Your task to perform on an android device: toggle javascript in the chrome app Image 0: 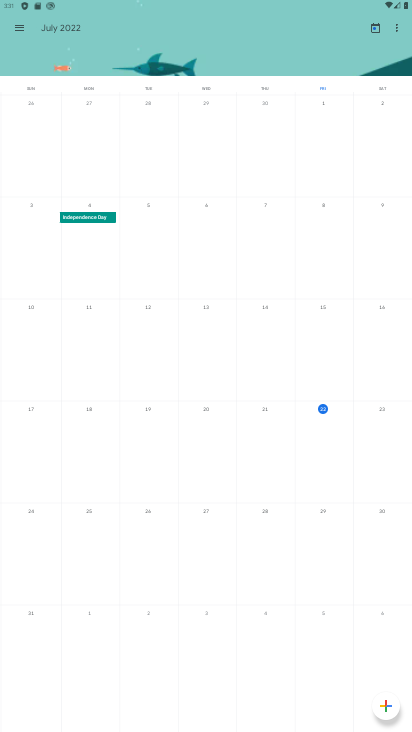
Step 0: press home button
Your task to perform on an android device: toggle javascript in the chrome app Image 1: 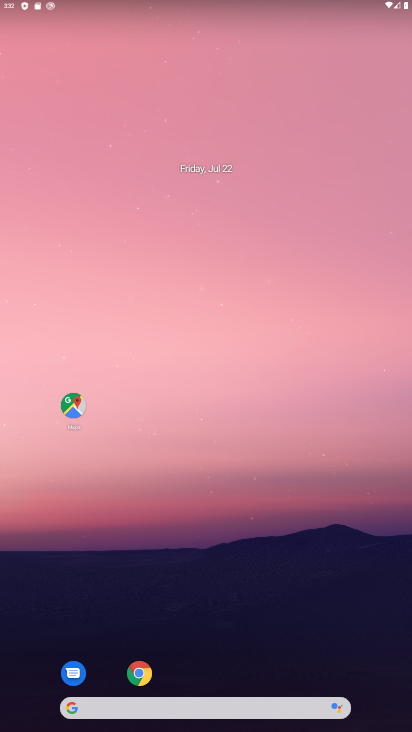
Step 1: click (137, 677)
Your task to perform on an android device: toggle javascript in the chrome app Image 2: 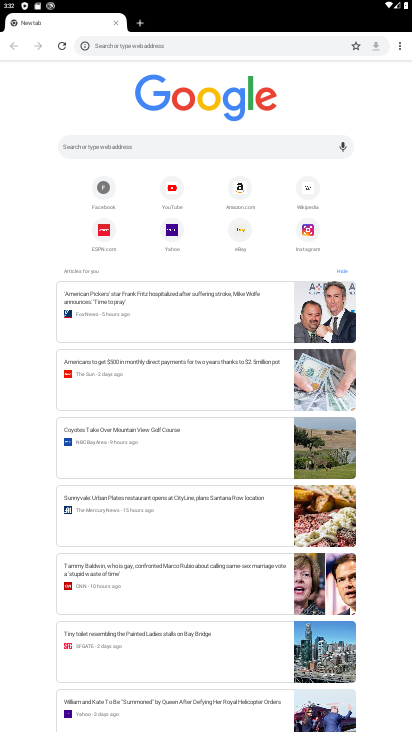
Step 2: click (400, 45)
Your task to perform on an android device: toggle javascript in the chrome app Image 3: 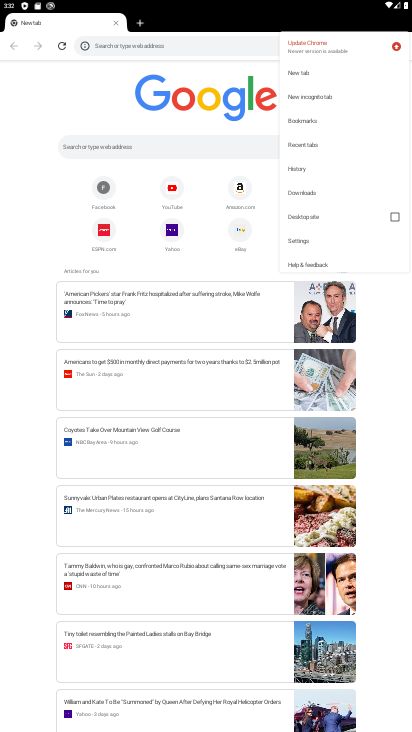
Step 3: click (306, 237)
Your task to perform on an android device: toggle javascript in the chrome app Image 4: 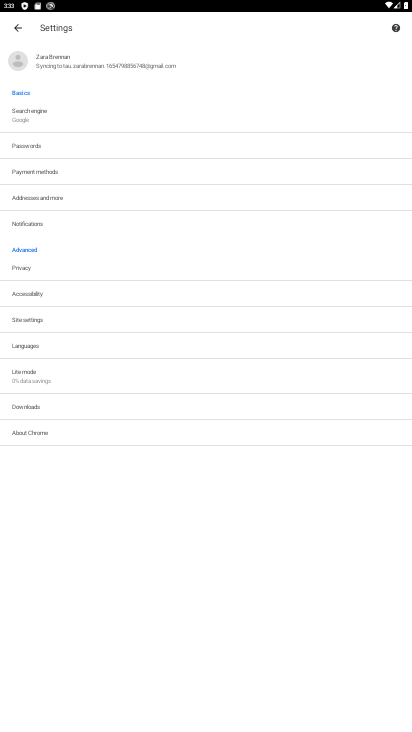
Step 4: click (34, 318)
Your task to perform on an android device: toggle javascript in the chrome app Image 5: 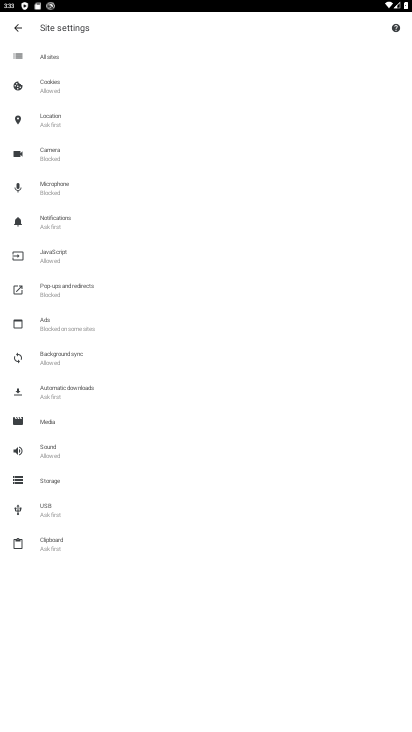
Step 5: click (59, 261)
Your task to perform on an android device: toggle javascript in the chrome app Image 6: 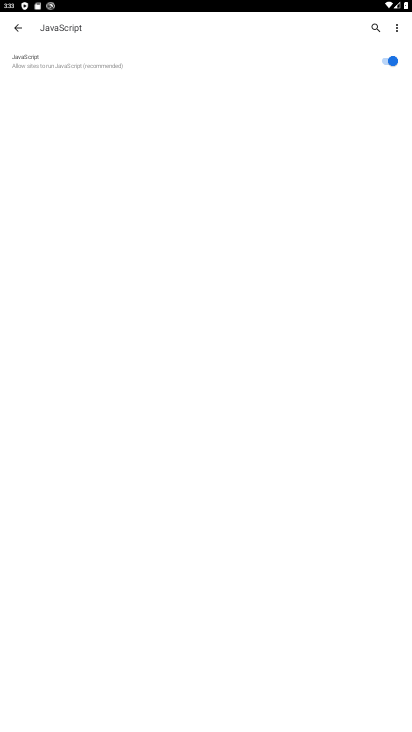
Step 6: click (386, 63)
Your task to perform on an android device: toggle javascript in the chrome app Image 7: 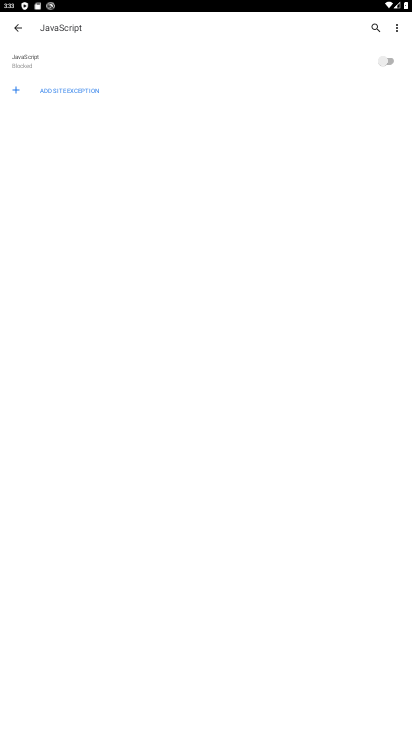
Step 7: task complete